Your task to perform on an android device: all mails in gmail Image 0: 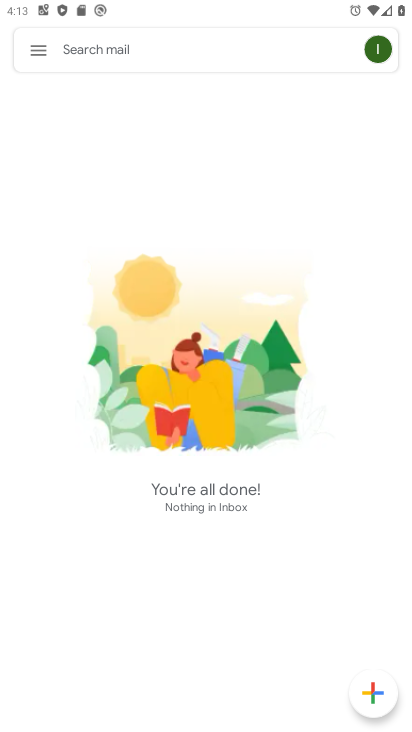
Step 0: press home button
Your task to perform on an android device: all mails in gmail Image 1: 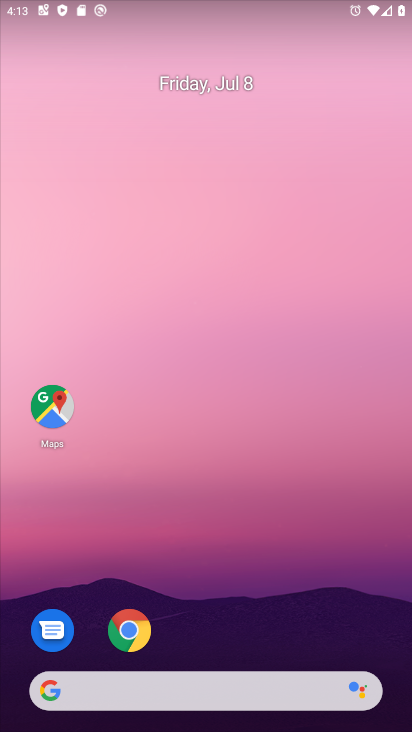
Step 1: drag from (202, 665) to (220, 86)
Your task to perform on an android device: all mails in gmail Image 2: 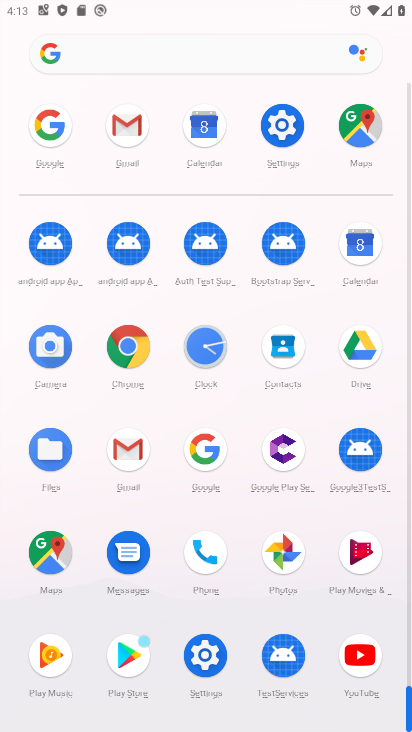
Step 2: click (127, 124)
Your task to perform on an android device: all mails in gmail Image 3: 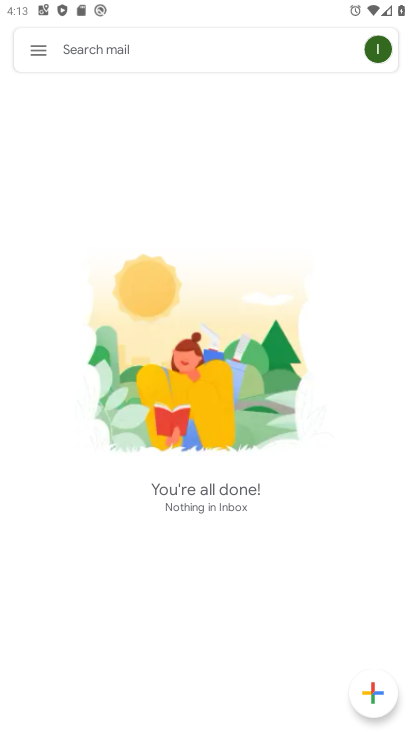
Step 3: click (32, 55)
Your task to perform on an android device: all mails in gmail Image 4: 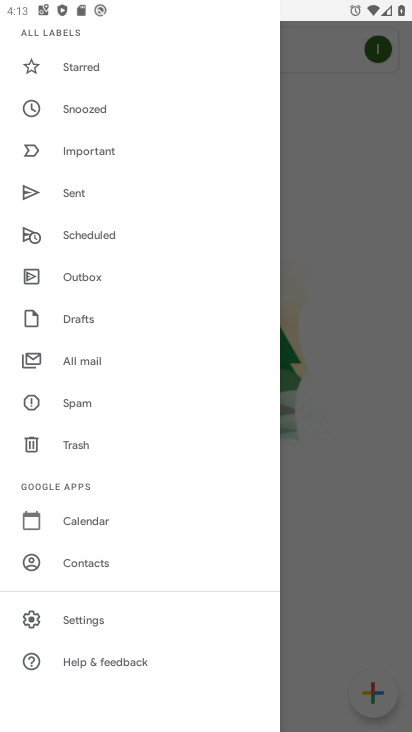
Step 4: click (92, 351)
Your task to perform on an android device: all mails in gmail Image 5: 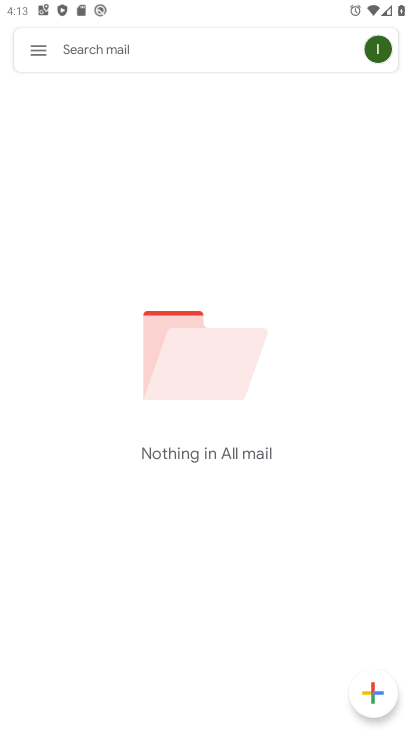
Step 5: task complete